Your task to perform on an android device: Clear all items from cart on costco. Image 0: 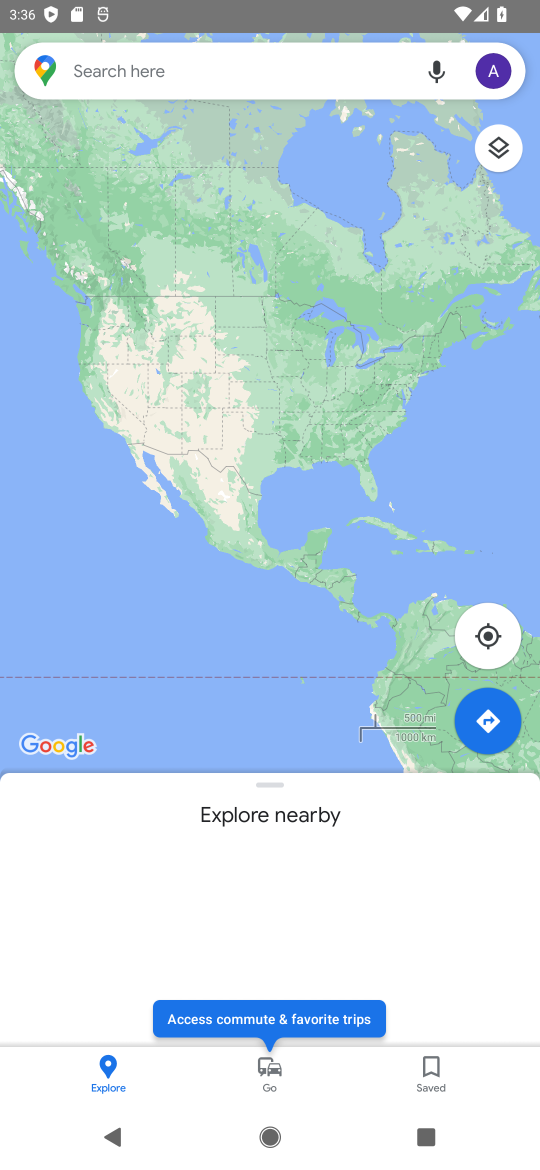
Step 0: press home button
Your task to perform on an android device: Clear all items from cart on costco. Image 1: 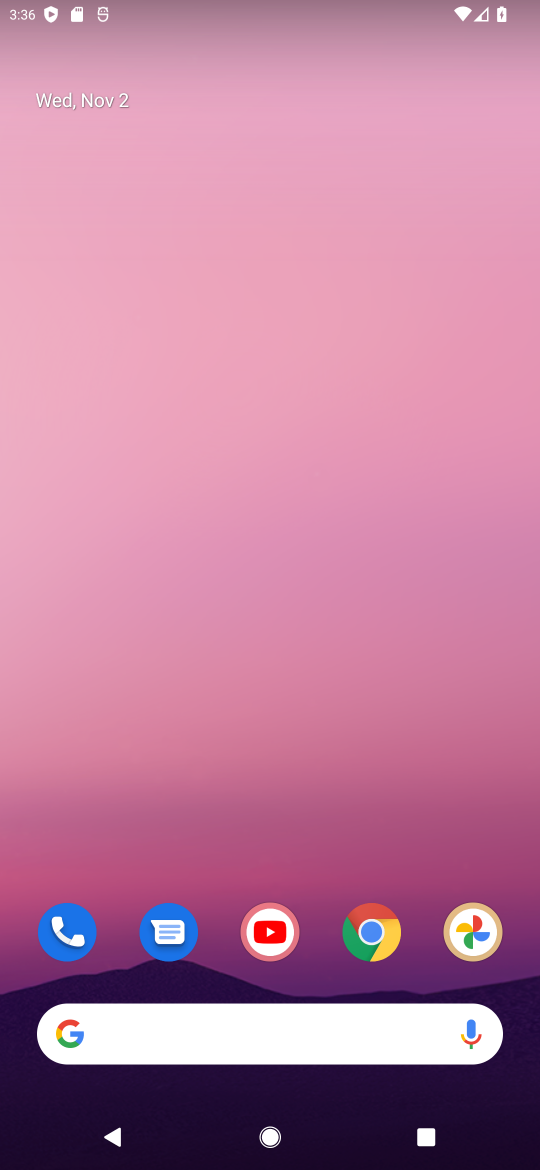
Step 1: click (367, 922)
Your task to perform on an android device: Clear all items from cart on costco. Image 2: 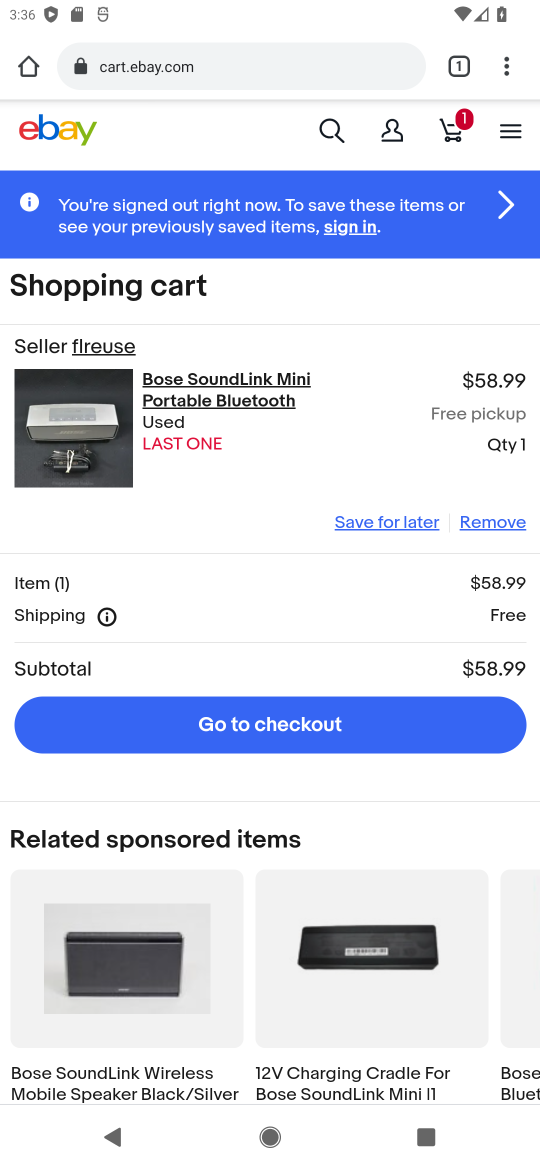
Step 2: click (137, 72)
Your task to perform on an android device: Clear all items from cart on costco. Image 3: 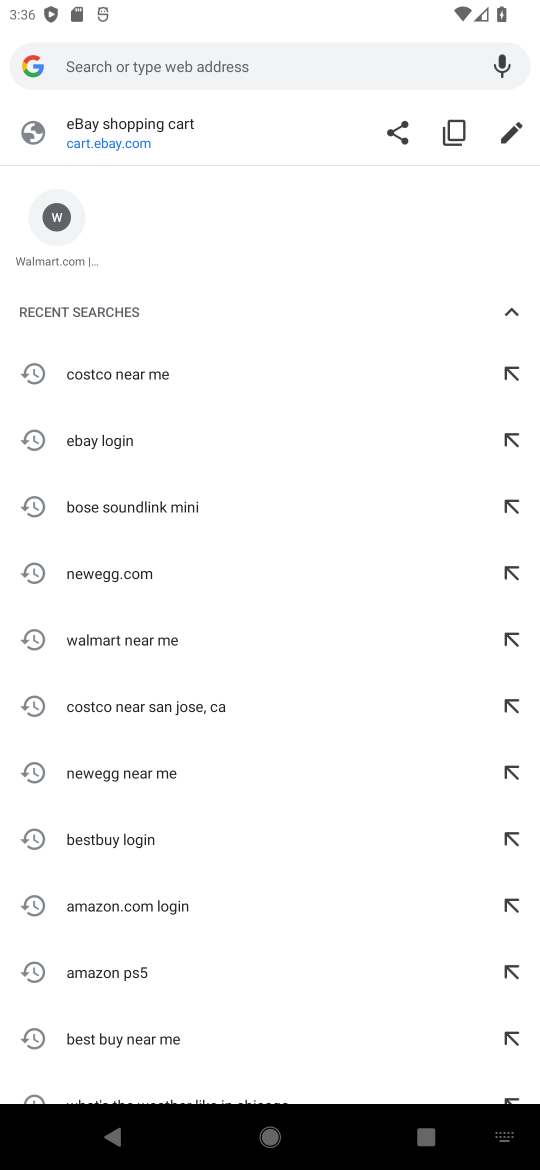
Step 3: type "costco"
Your task to perform on an android device: Clear all items from cart on costco. Image 4: 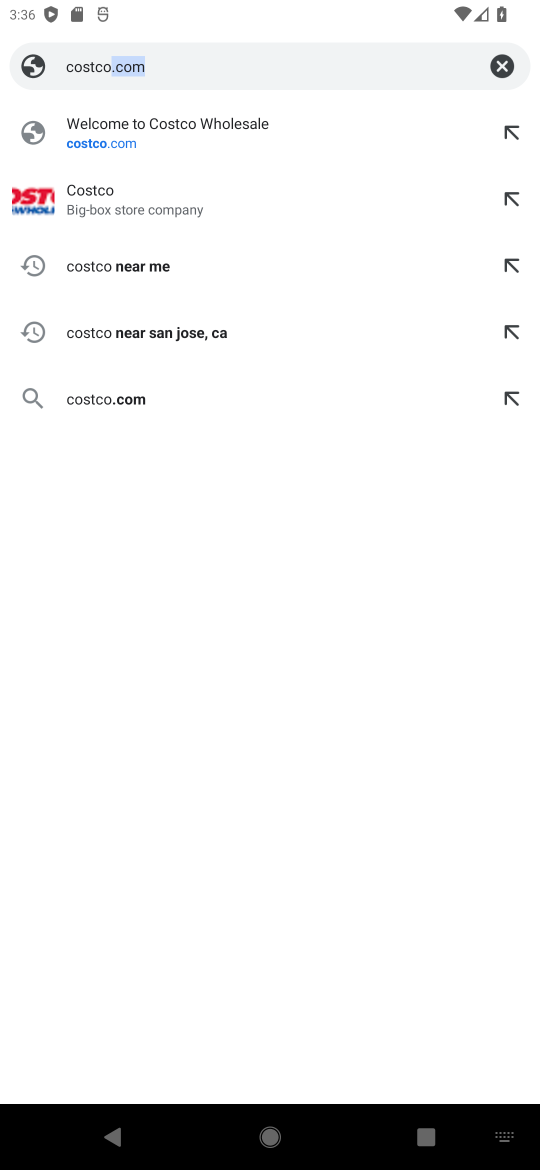
Step 4: click (165, 206)
Your task to perform on an android device: Clear all items from cart on costco. Image 5: 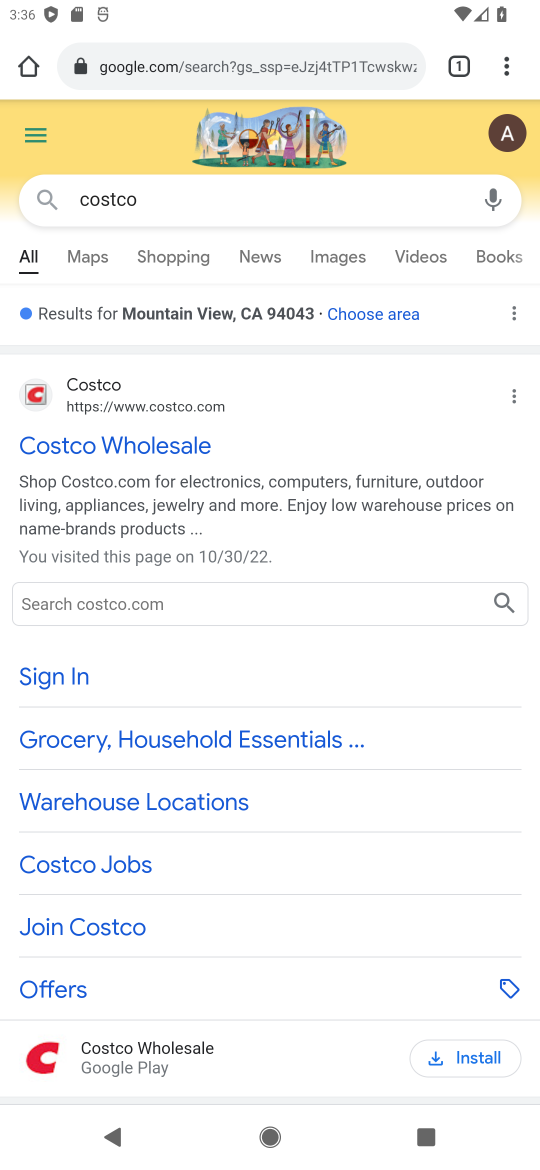
Step 5: click (88, 395)
Your task to perform on an android device: Clear all items from cart on costco. Image 6: 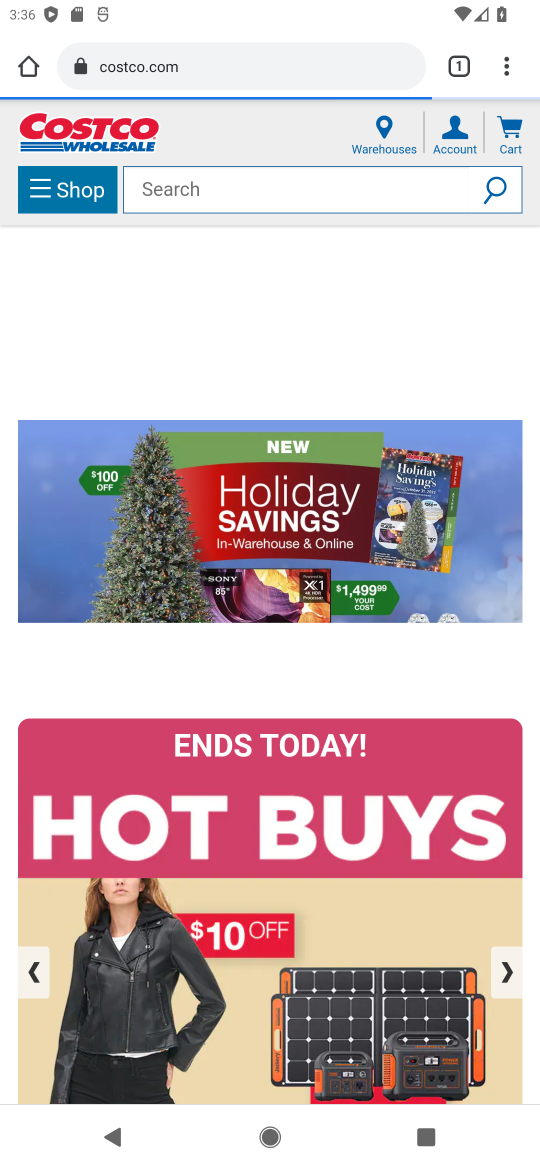
Step 6: click (261, 185)
Your task to perform on an android device: Clear all items from cart on costco. Image 7: 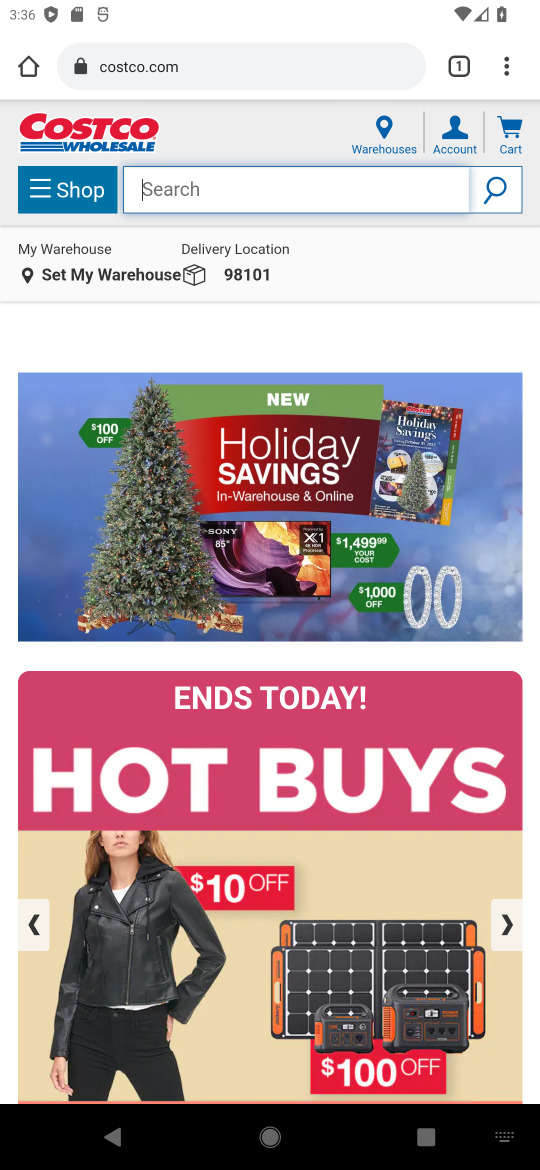
Step 7: click (505, 134)
Your task to perform on an android device: Clear all items from cart on costco. Image 8: 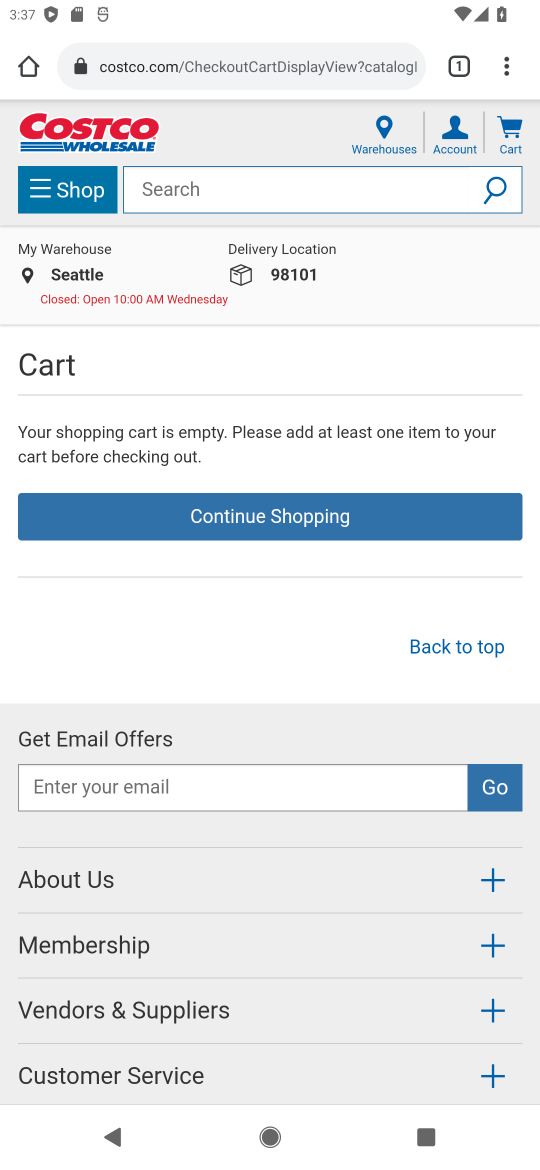
Step 8: task complete